Your task to perform on an android device: Go to Amazon Image 0: 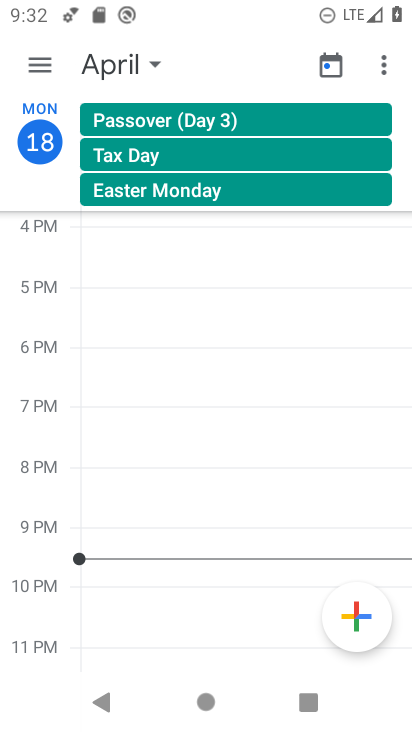
Step 0: press back button
Your task to perform on an android device: Go to Amazon Image 1: 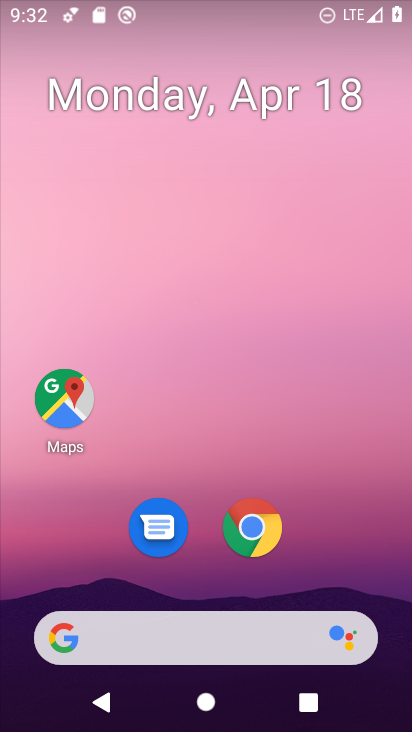
Step 1: click (253, 525)
Your task to perform on an android device: Go to Amazon Image 2: 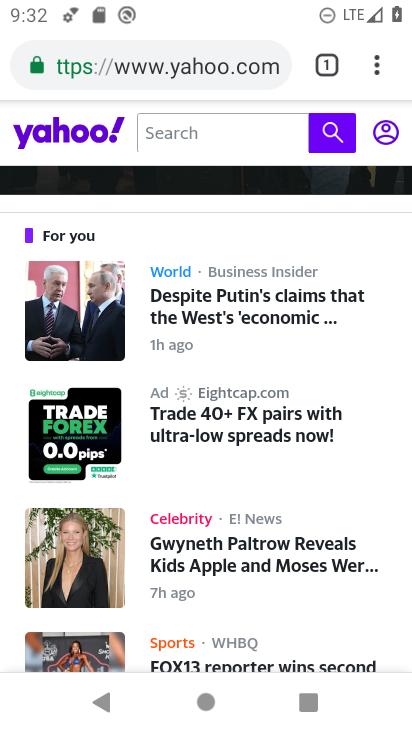
Step 2: click (211, 48)
Your task to perform on an android device: Go to Amazon Image 3: 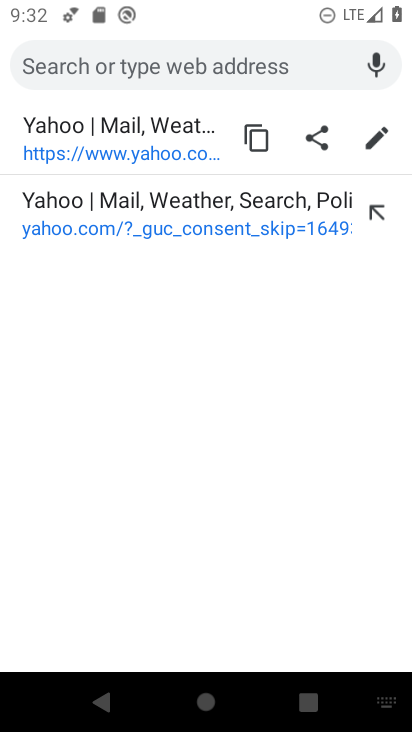
Step 3: type "Amazon"
Your task to perform on an android device: Go to Amazon Image 4: 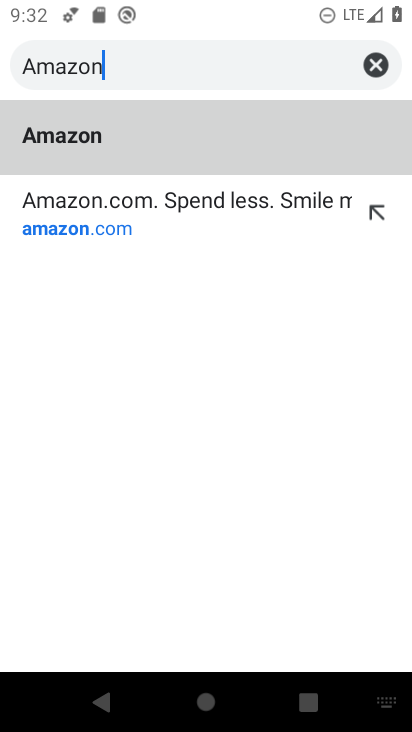
Step 4: click (179, 227)
Your task to perform on an android device: Go to Amazon Image 5: 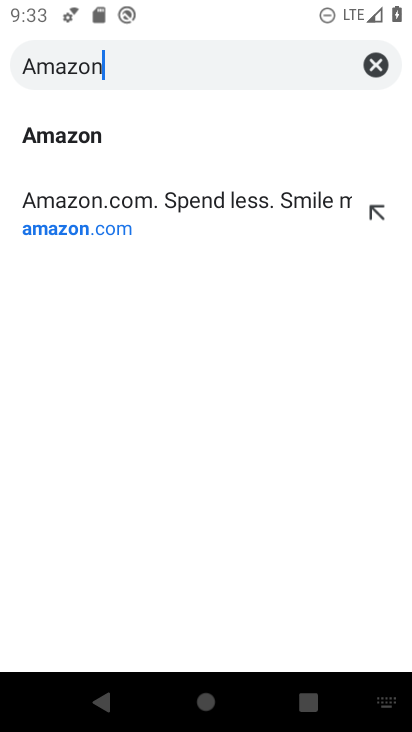
Step 5: click (178, 214)
Your task to perform on an android device: Go to Amazon Image 6: 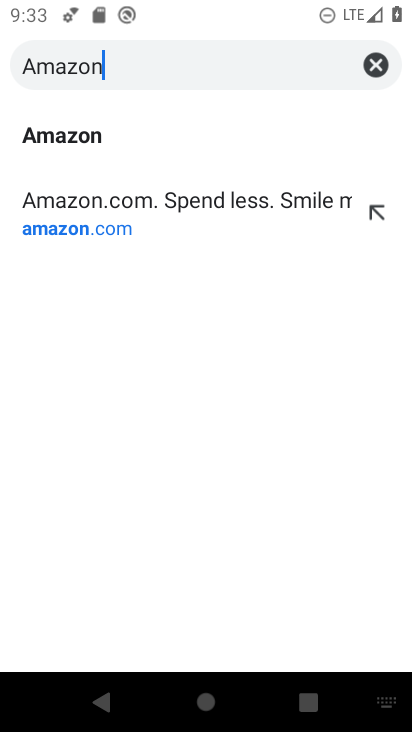
Step 6: click (115, 212)
Your task to perform on an android device: Go to Amazon Image 7: 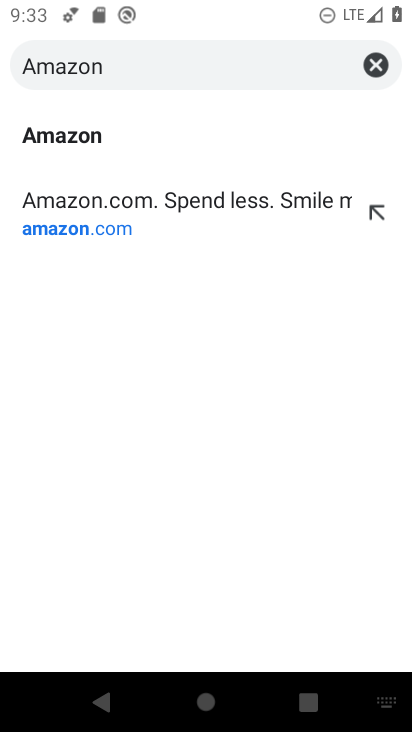
Step 7: click (136, 126)
Your task to perform on an android device: Go to Amazon Image 8: 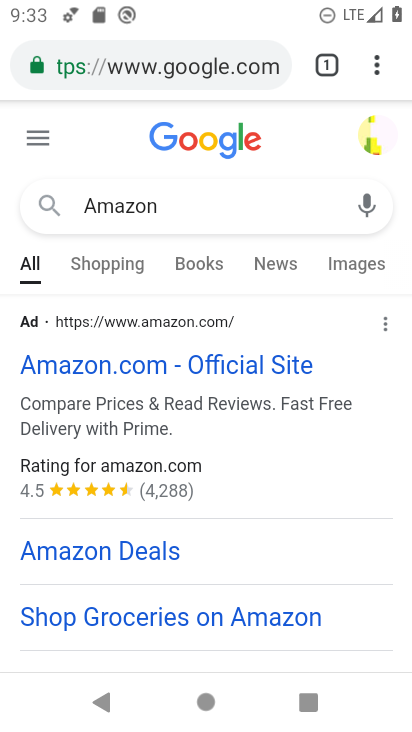
Step 8: click (116, 360)
Your task to perform on an android device: Go to Amazon Image 9: 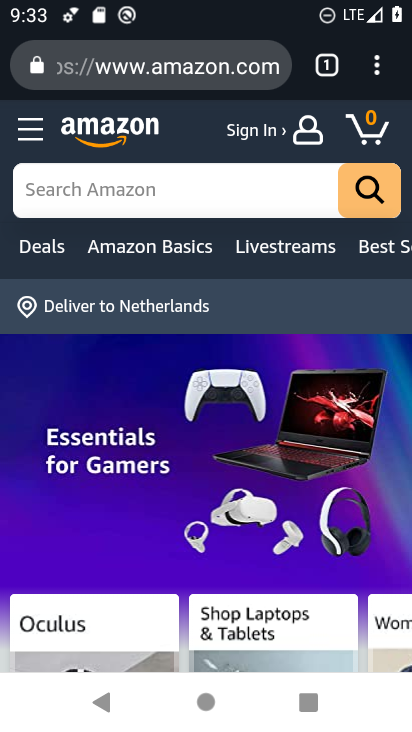
Step 9: task complete